Your task to perform on an android device: Open ESPN.com Image 0: 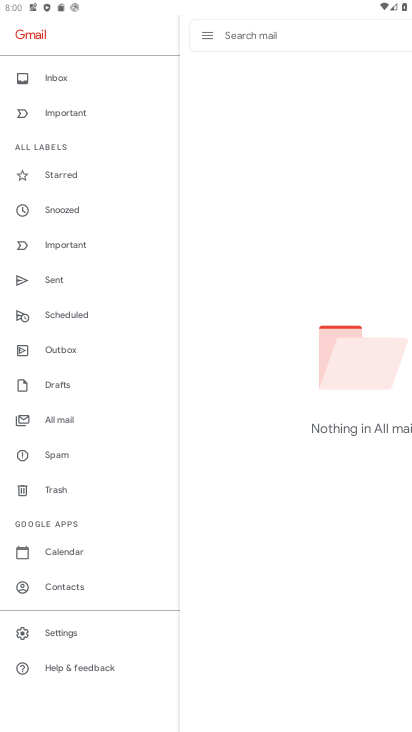
Step 0: press home button
Your task to perform on an android device: Open ESPN.com Image 1: 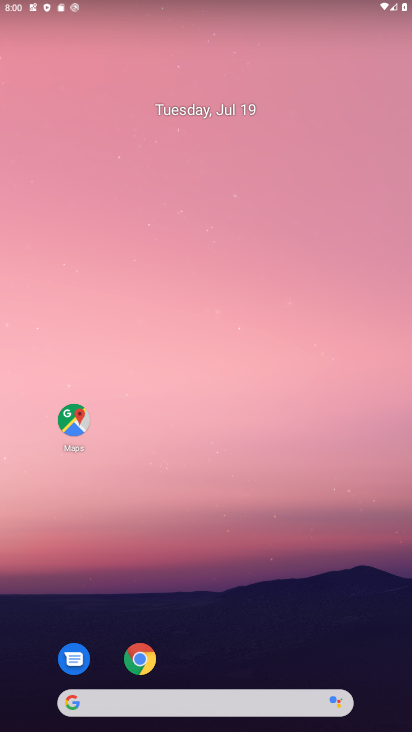
Step 1: click (137, 665)
Your task to perform on an android device: Open ESPN.com Image 2: 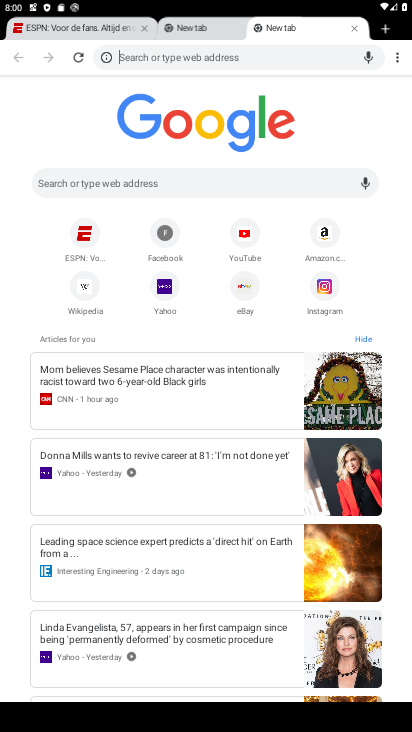
Step 2: click (95, 30)
Your task to perform on an android device: Open ESPN.com Image 3: 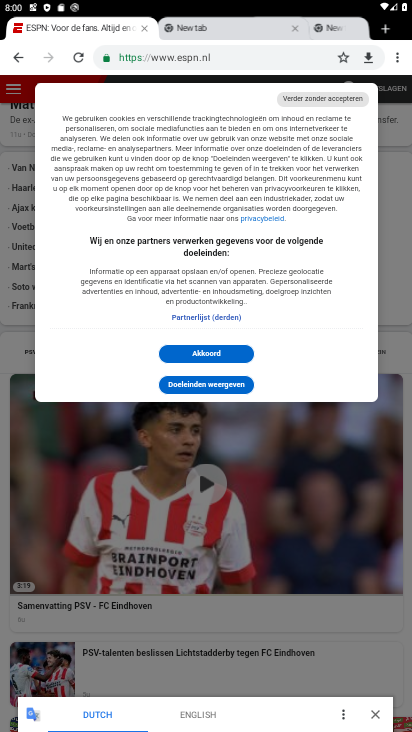
Step 3: task complete